Your task to perform on an android device: open chrome privacy settings Image 0: 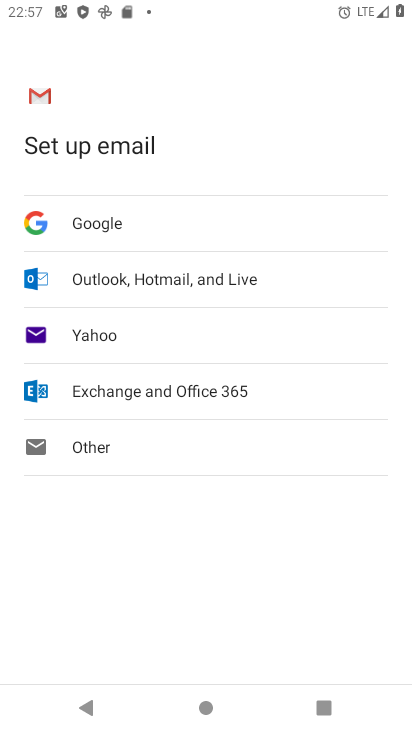
Step 0: press home button
Your task to perform on an android device: open chrome privacy settings Image 1: 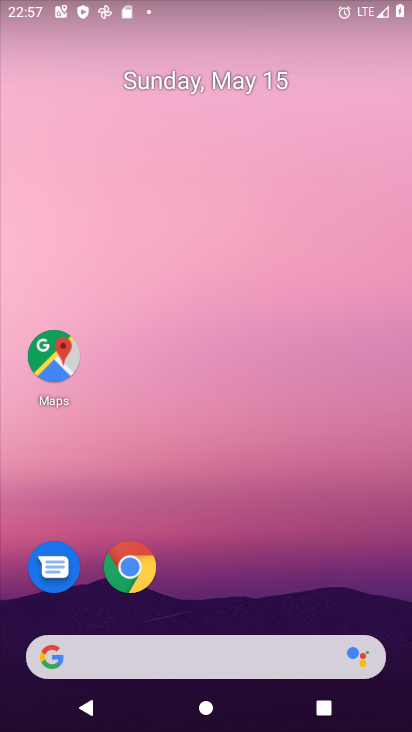
Step 1: drag from (254, 681) to (301, 275)
Your task to perform on an android device: open chrome privacy settings Image 2: 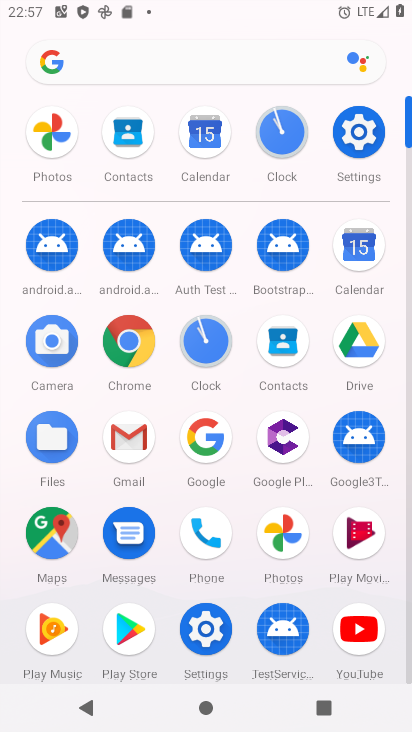
Step 2: click (377, 131)
Your task to perform on an android device: open chrome privacy settings Image 3: 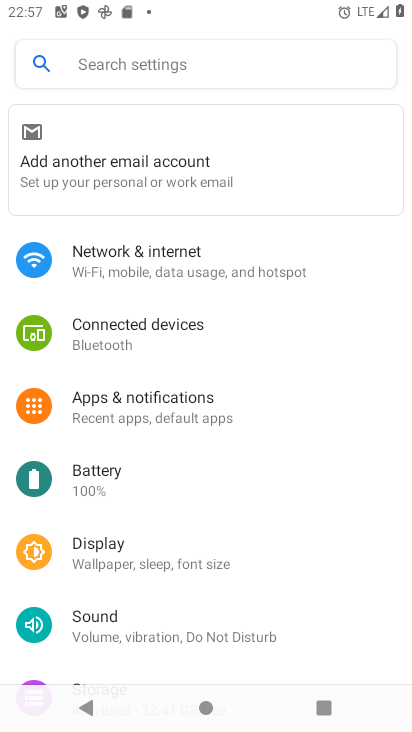
Step 3: drag from (241, 618) to (342, 33)
Your task to perform on an android device: open chrome privacy settings Image 4: 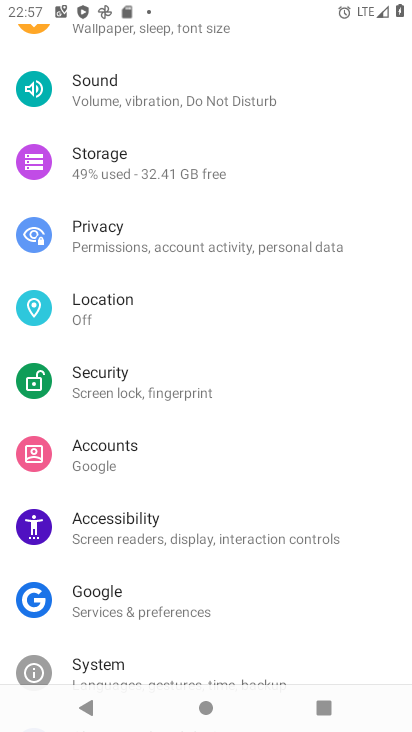
Step 4: click (103, 235)
Your task to perform on an android device: open chrome privacy settings Image 5: 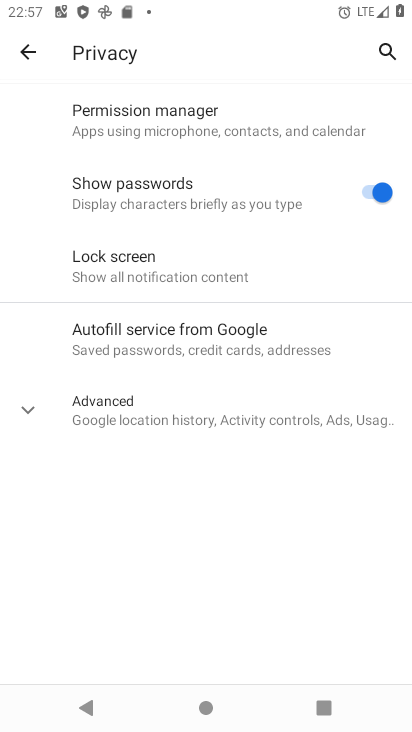
Step 5: task complete